Your task to perform on an android device: open app "Life360: Find Family & Friends" (install if not already installed) Image 0: 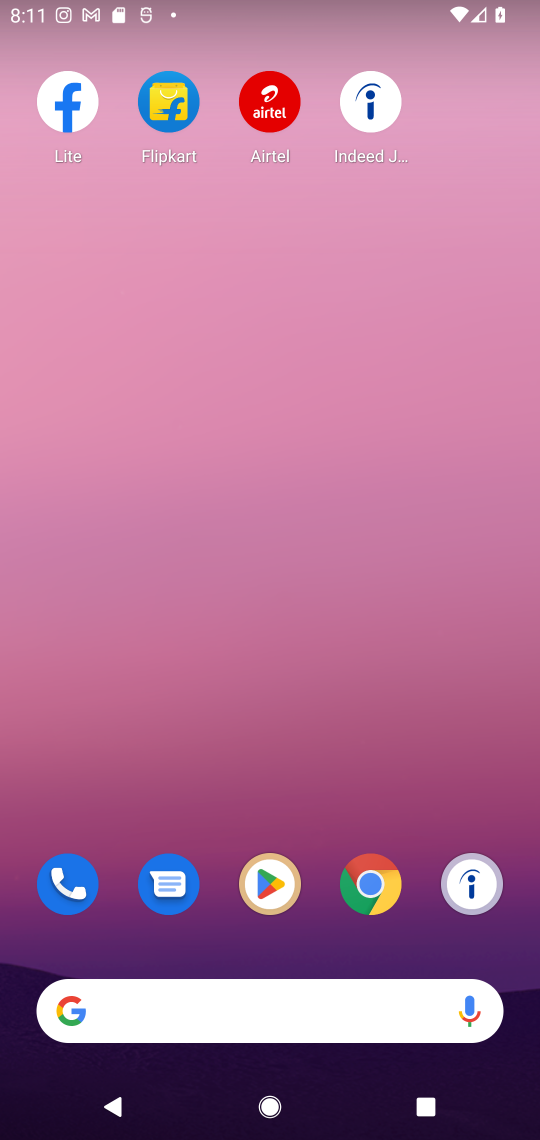
Step 0: drag from (215, 998) to (459, 142)
Your task to perform on an android device: open app "Life360: Find Family & Friends" (install if not already installed) Image 1: 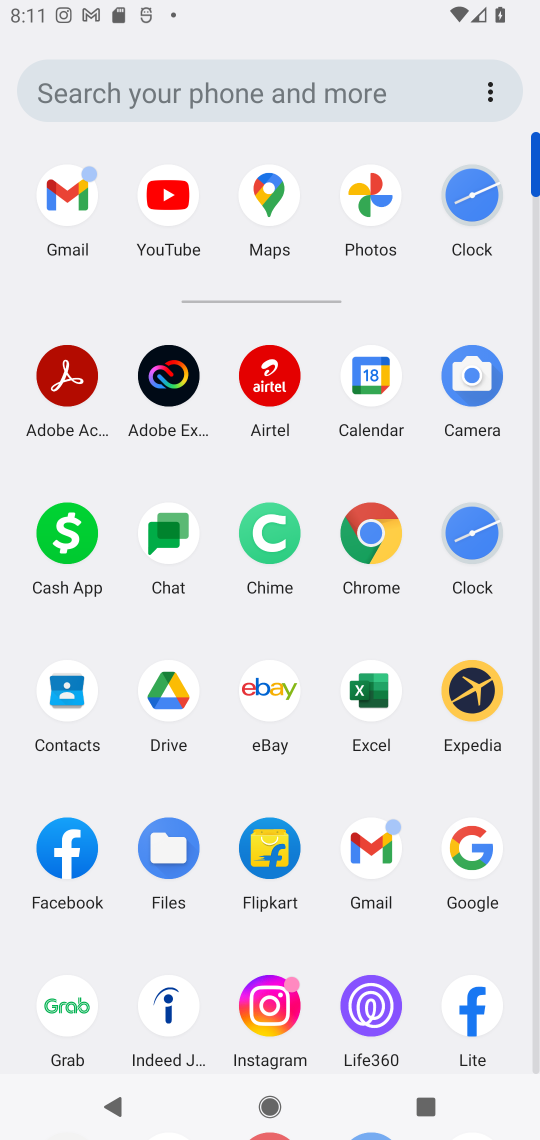
Step 1: drag from (309, 792) to (486, 427)
Your task to perform on an android device: open app "Life360: Find Family & Friends" (install if not already installed) Image 2: 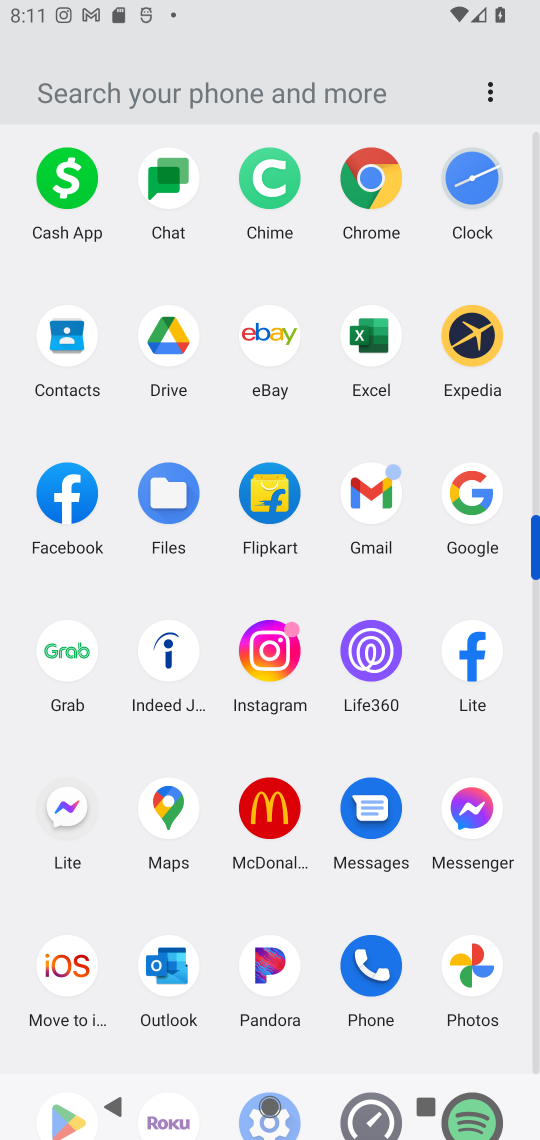
Step 2: drag from (318, 773) to (396, 435)
Your task to perform on an android device: open app "Life360: Find Family & Friends" (install if not already installed) Image 3: 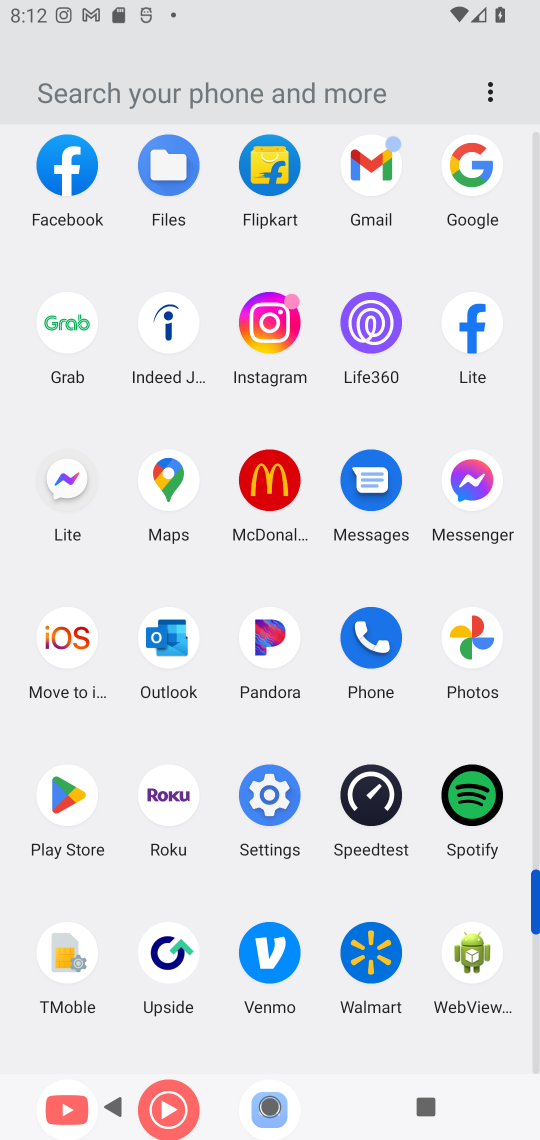
Step 3: click (73, 794)
Your task to perform on an android device: open app "Life360: Find Family & Friends" (install if not already installed) Image 4: 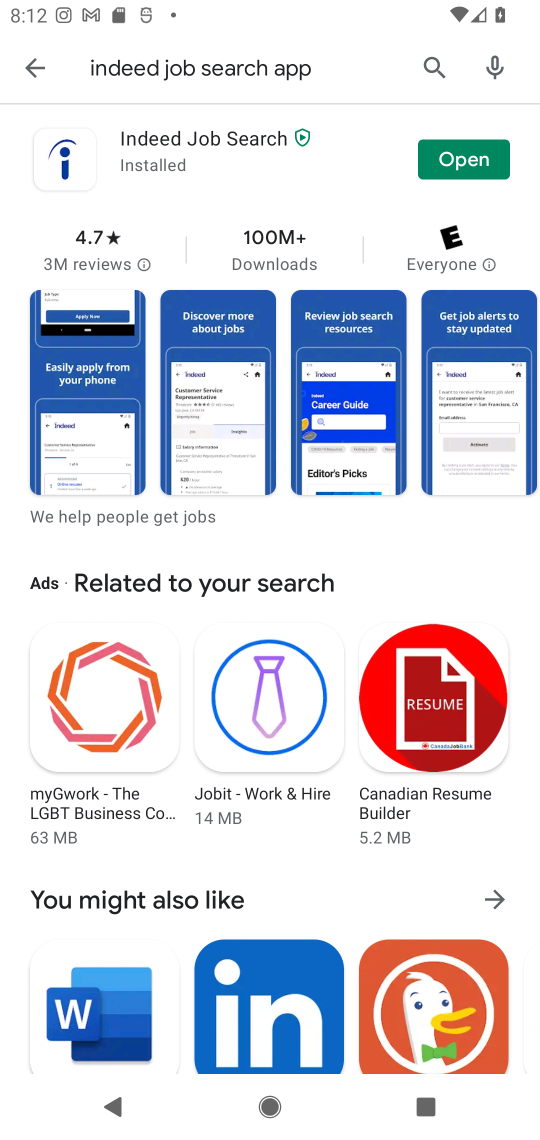
Step 4: press back button
Your task to perform on an android device: open app "Life360: Find Family & Friends" (install if not already installed) Image 5: 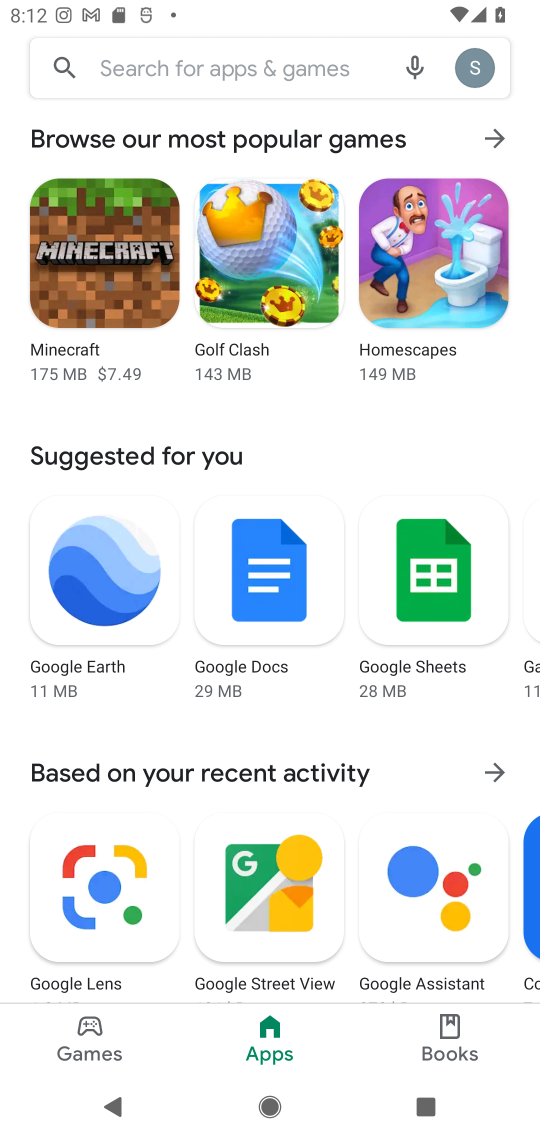
Step 5: click (252, 76)
Your task to perform on an android device: open app "Life360: Find Family & Friends" (install if not already installed) Image 6: 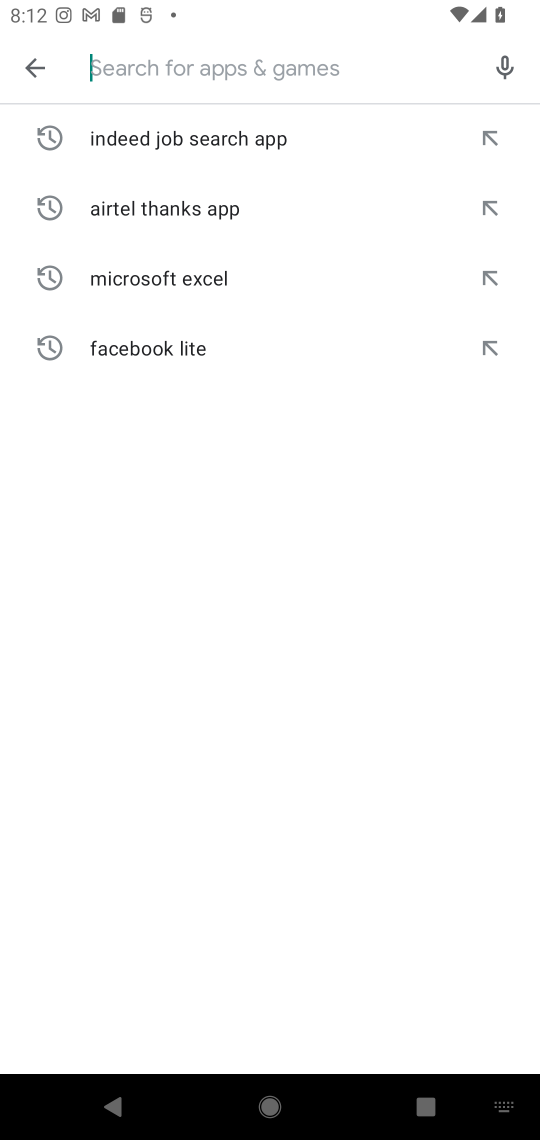
Step 6: type "Life360: Find Family & Friends"
Your task to perform on an android device: open app "Life360: Find Family & Friends" (install if not already installed) Image 7: 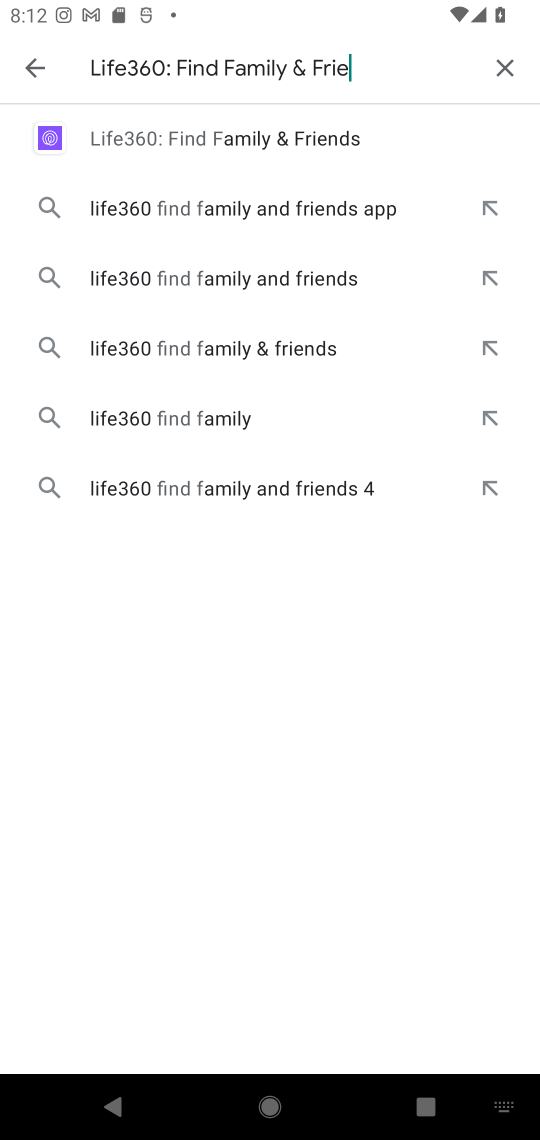
Step 7: type ""
Your task to perform on an android device: open app "Life360: Find Family & Friends" (install if not already installed) Image 8: 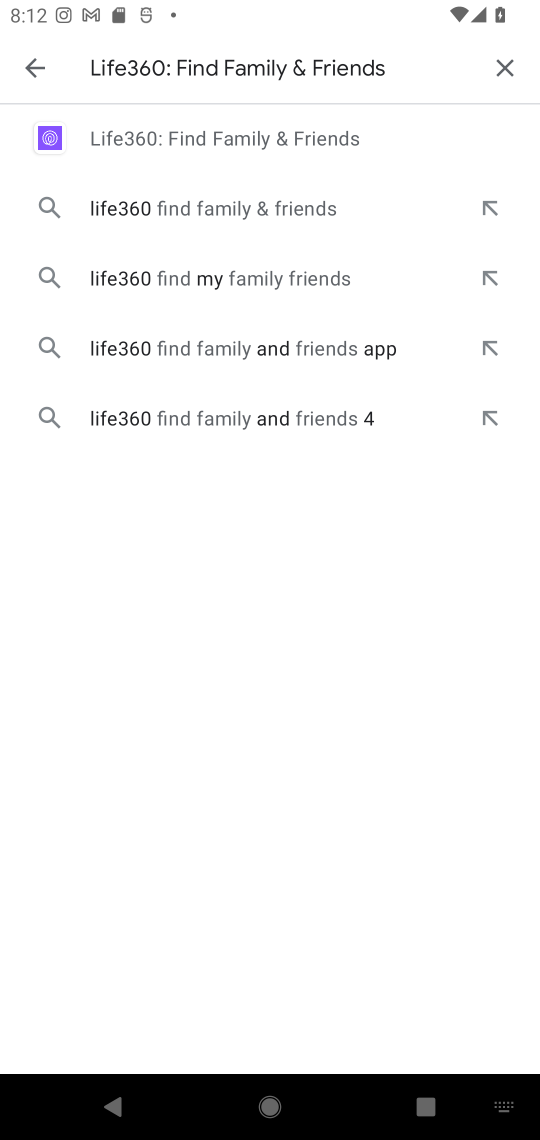
Step 8: click (194, 132)
Your task to perform on an android device: open app "Life360: Find Family & Friends" (install if not already installed) Image 9: 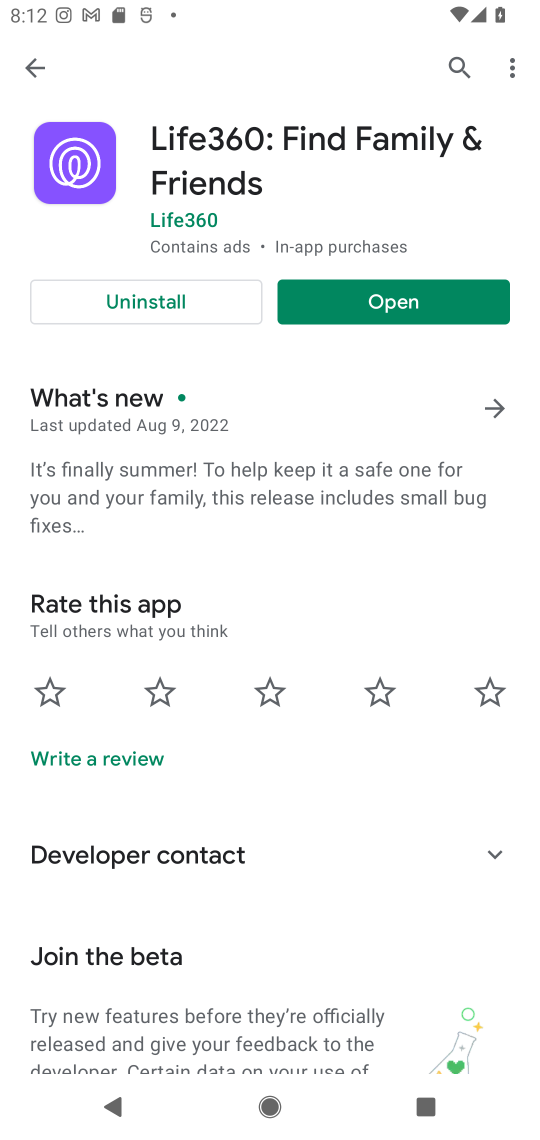
Step 9: click (408, 310)
Your task to perform on an android device: open app "Life360: Find Family & Friends" (install if not already installed) Image 10: 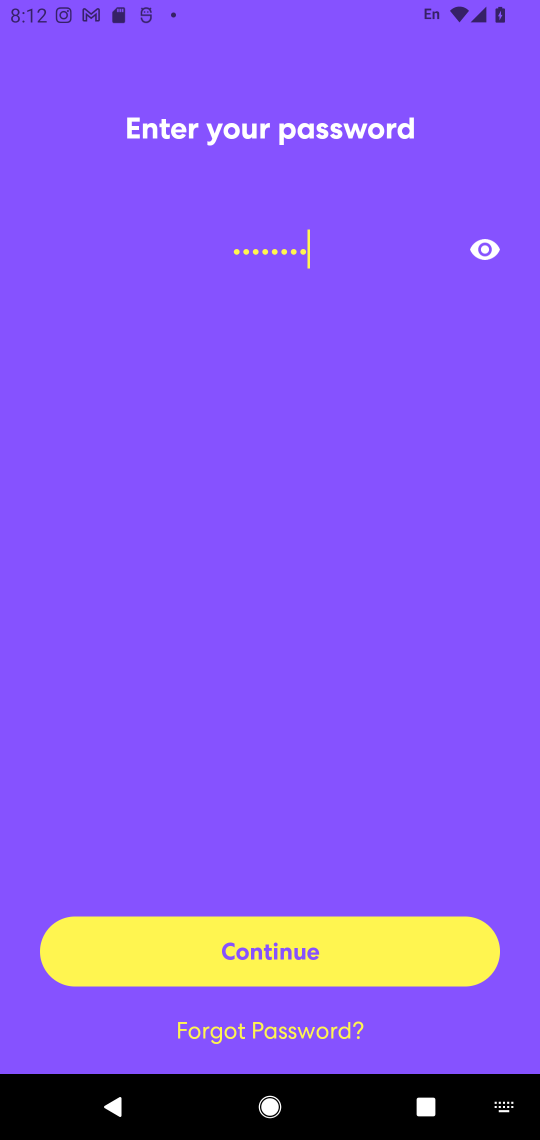
Step 10: task complete